Your task to perform on an android device: Open Chrome and go to the settings page Image 0: 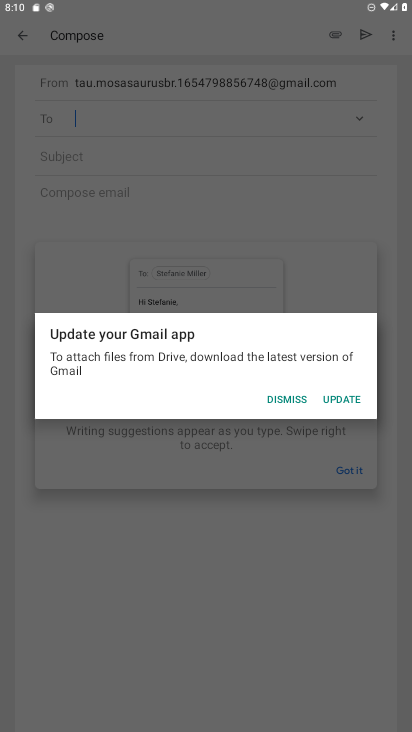
Step 0: press home button
Your task to perform on an android device: Open Chrome and go to the settings page Image 1: 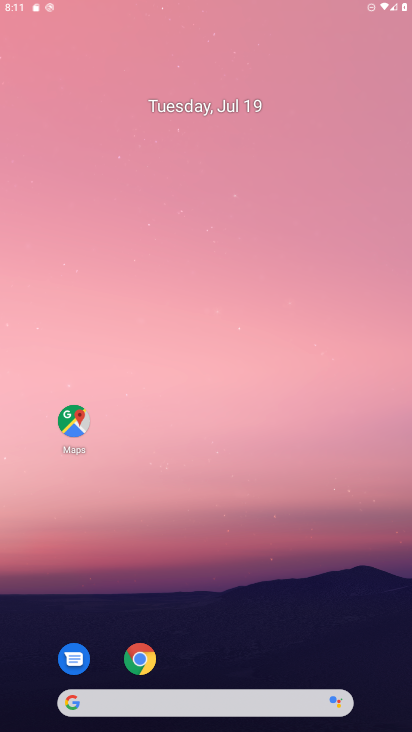
Step 1: drag from (227, 663) to (225, 290)
Your task to perform on an android device: Open Chrome and go to the settings page Image 2: 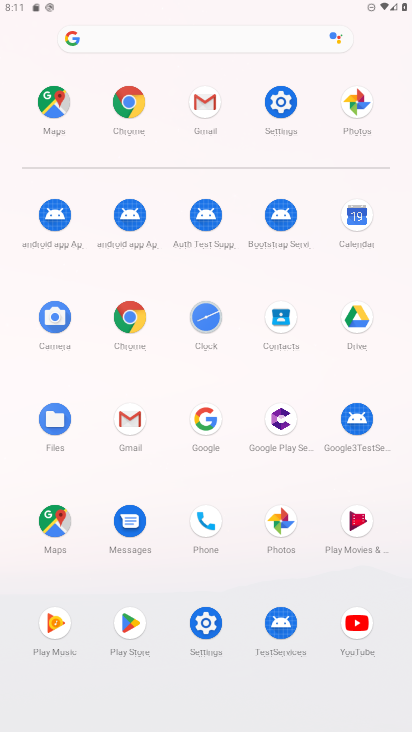
Step 2: click (134, 313)
Your task to perform on an android device: Open Chrome and go to the settings page Image 3: 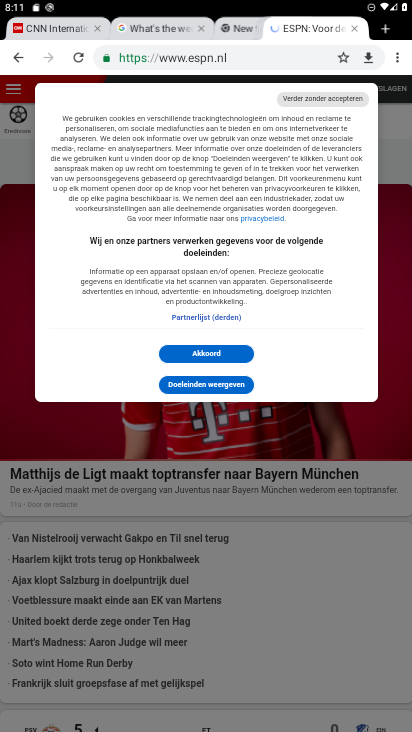
Step 3: click (404, 52)
Your task to perform on an android device: Open Chrome and go to the settings page Image 4: 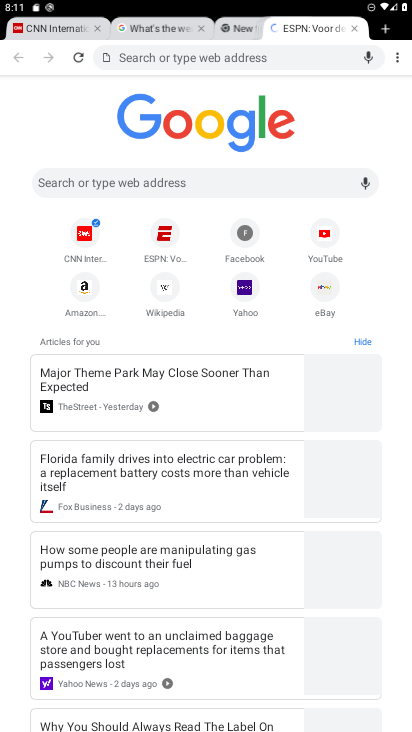
Step 4: click (404, 54)
Your task to perform on an android device: Open Chrome and go to the settings page Image 5: 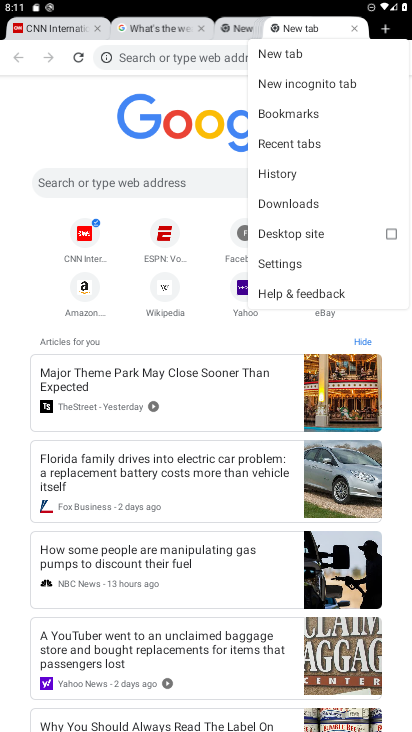
Step 5: click (289, 266)
Your task to perform on an android device: Open Chrome and go to the settings page Image 6: 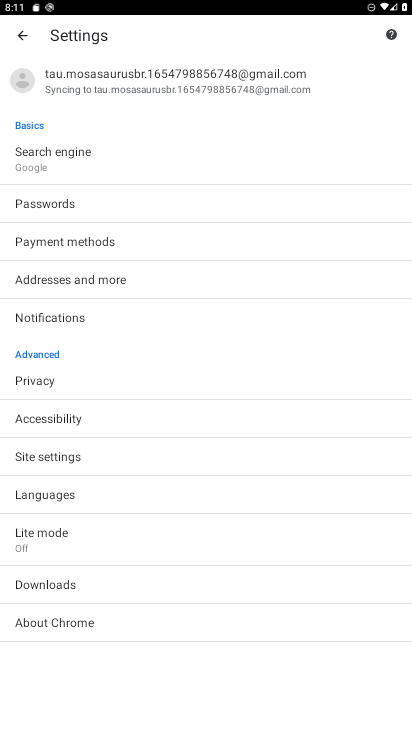
Step 6: task complete